Your task to perform on an android device: stop showing notifications on the lock screen Image 0: 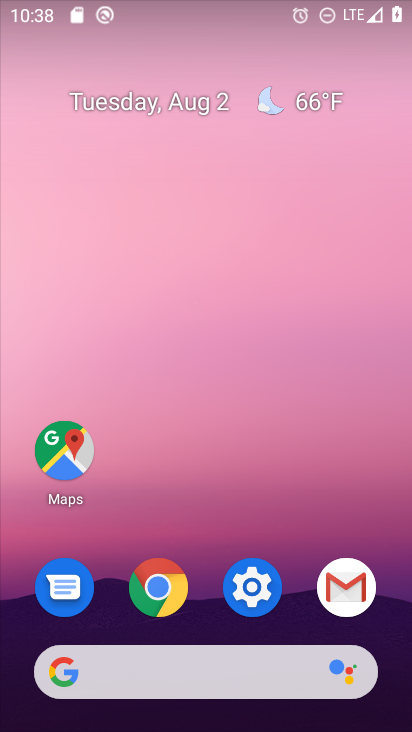
Step 0: press home button
Your task to perform on an android device: stop showing notifications on the lock screen Image 1: 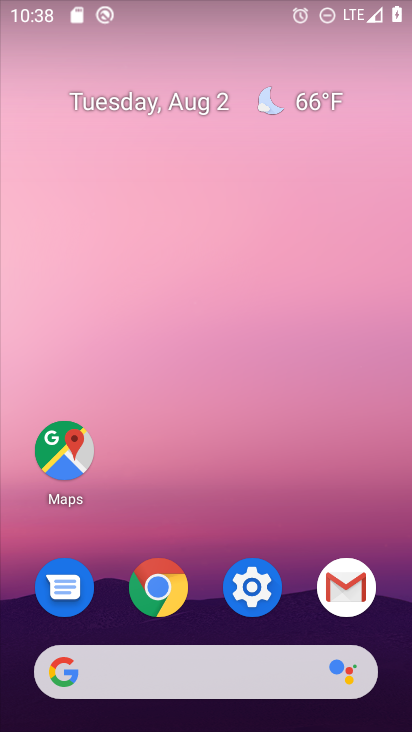
Step 1: click (239, 565)
Your task to perform on an android device: stop showing notifications on the lock screen Image 2: 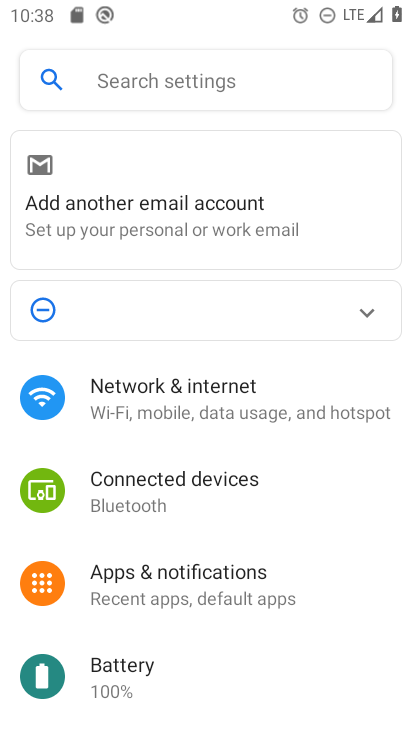
Step 2: click (165, 86)
Your task to perform on an android device: stop showing notifications on the lock screen Image 3: 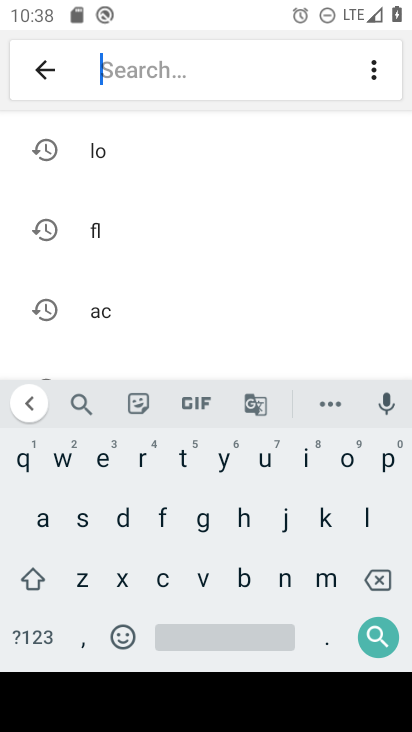
Step 3: click (277, 577)
Your task to perform on an android device: stop showing notifications on the lock screen Image 4: 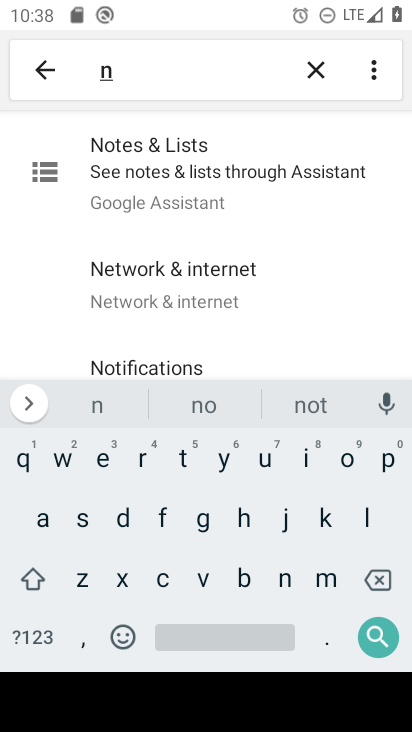
Step 4: click (348, 450)
Your task to perform on an android device: stop showing notifications on the lock screen Image 5: 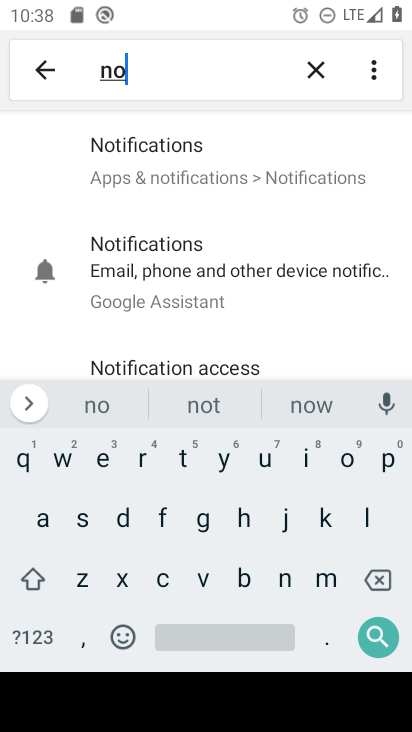
Step 5: click (202, 187)
Your task to perform on an android device: stop showing notifications on the lock screen Image 6: 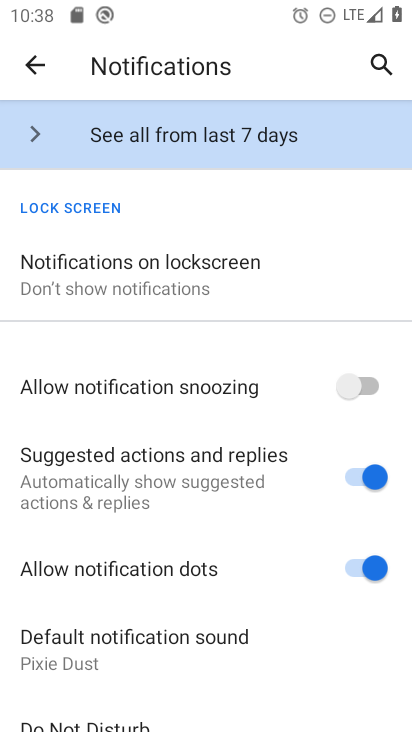
Step 6: click (141, 275)
Your task to perform on an android device: stop showing notifications on the lock screen Image 7: 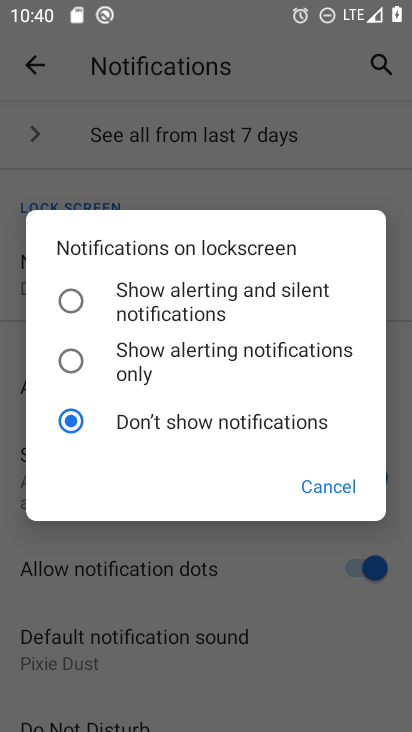
Step 7: task complete